Your task to perform on an android device: Open Google Chrome and open the bookmarks view Image 0: 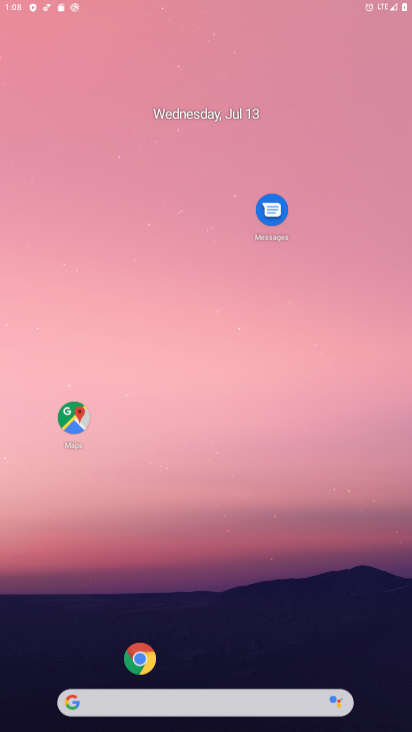
Step 0: click (80, 418)
Your task to perform on an android device: Open Google Chrome and open the bookmarks view Image 1: 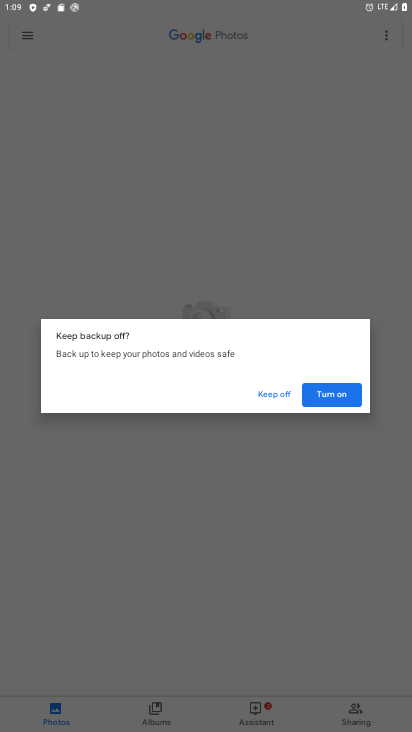
Step 1: press home button
Your task to perform on an android device: Open Google Chrome and open the bookmarks view Image 2: 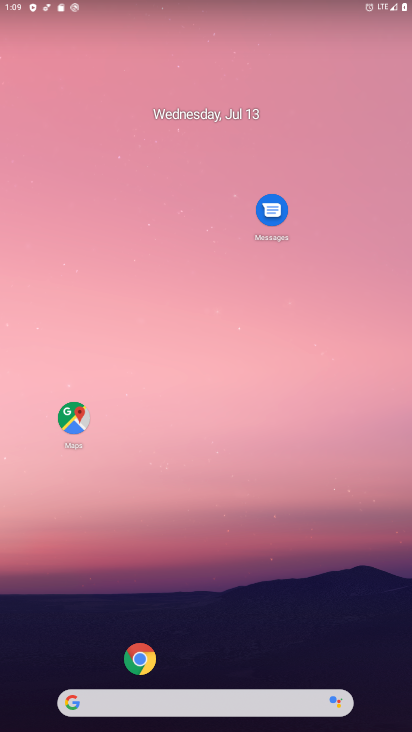
Step 2: click (140, 660)
Your task to perform on an android device: Open Google Chrome and open the bookmarks view Image 3: 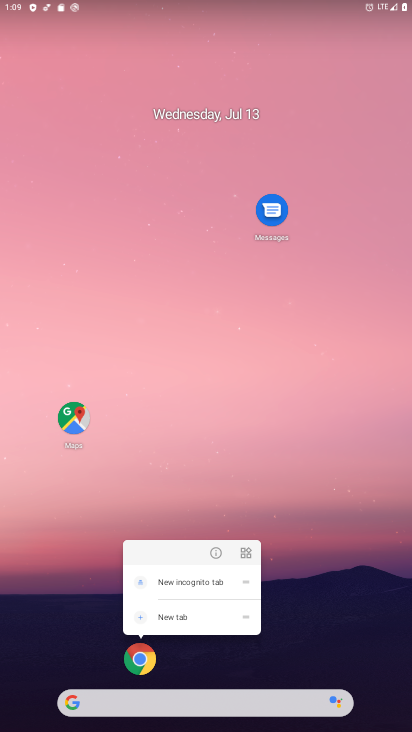
Step 3: click (141, 661)
Your task to perform on an android device: Open Google Chrome and open the bookmarks view Image 4: 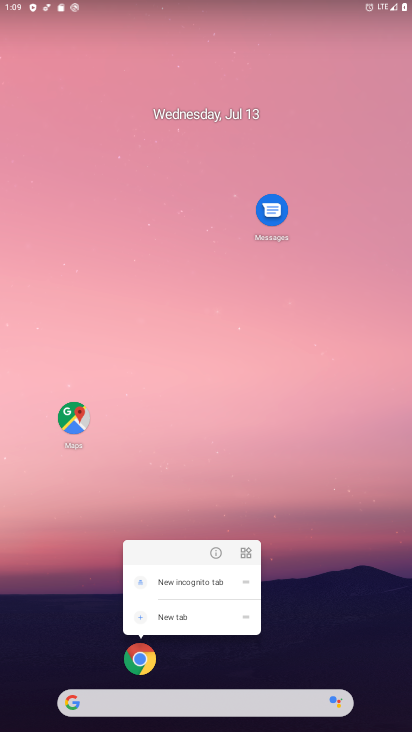
Step 4: click (144, 651)
Your task to perform on an android device: Open Google Chrome and open the bookmarks view Image 5: 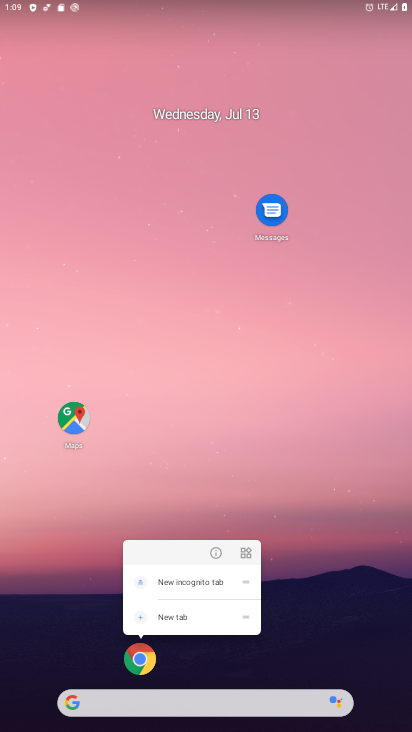
Step 5: click (129, 639)
Your task to perform on an android device: Open Google Chrome and open the bookmarks view Image 6: 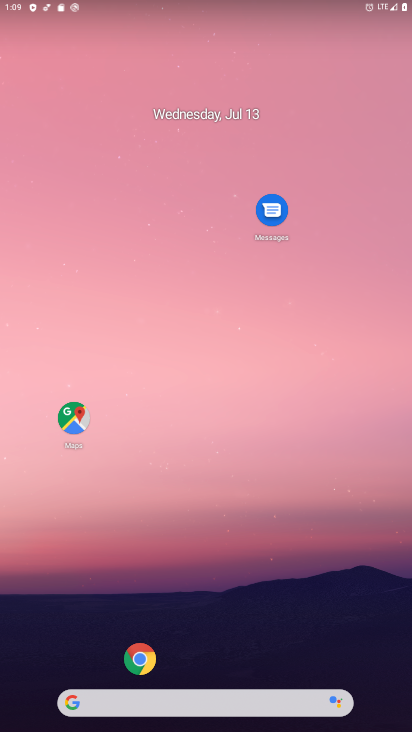
Step 6: click (145, 644)
Your task to perform on an android device: Open Google Chrome and open the bookmarks view Image 7: 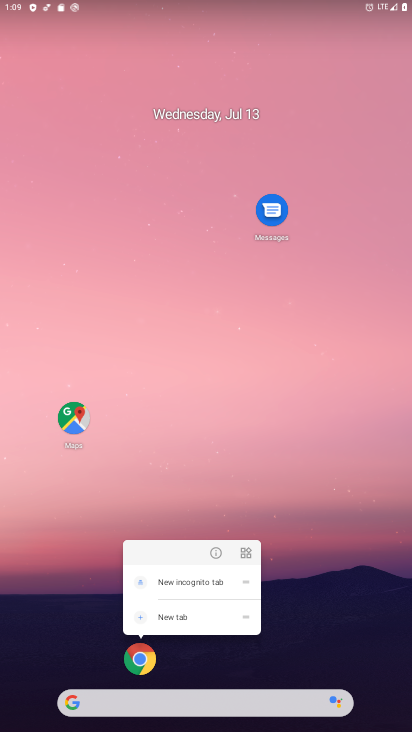
Step 7: task complete